Your task to perform on an android device: turn off airplane mode Image 0: 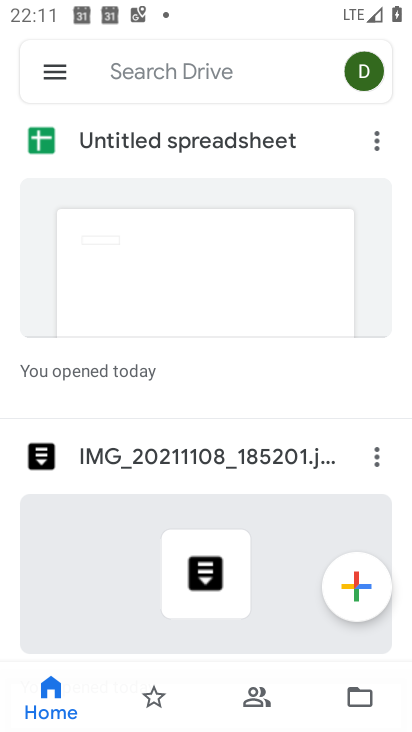
Step 0: drag from (300, 9) to (234, 708)
Your task to perform on an android device: turn off airplane mode Image 1: 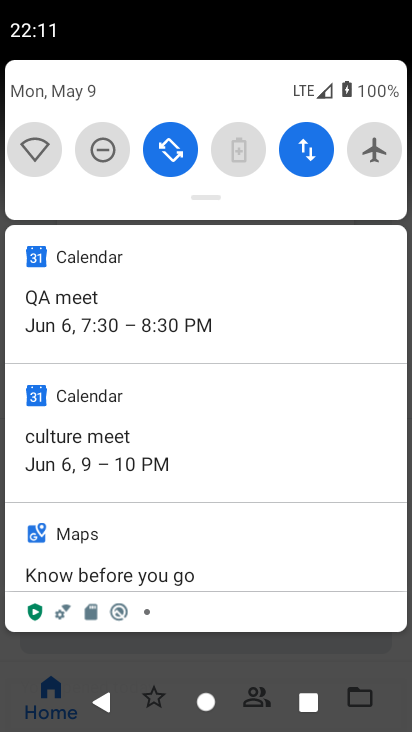
Step 1: task complete